Your task to perform on an android device: Open privacy settings Image 0: 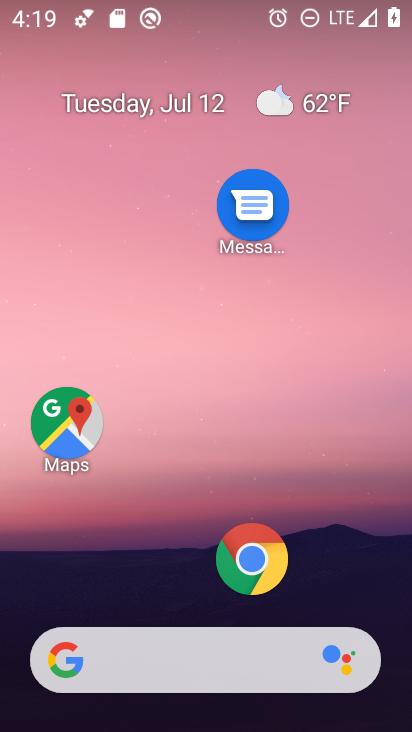
Step 0: click (249, 551)
Your task to perform on an android device: Open privacy settings Image 1: 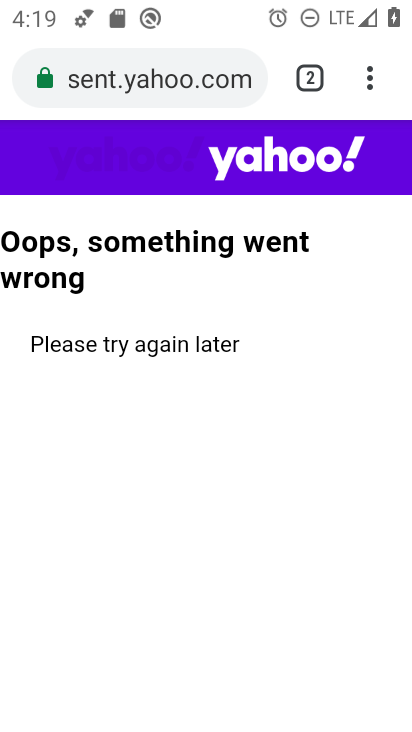
Step 1: drag from (366, 62) to (160, 600)
Your task to perform on an android device: Open privacy settings Image 2: 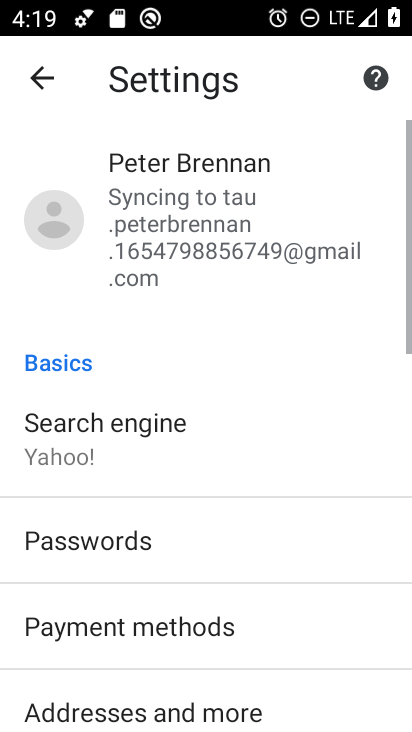
Step 2: drag from (148, 667) to (236, 107)
Your task to perform on an android device: Open privacy settings Image 3: 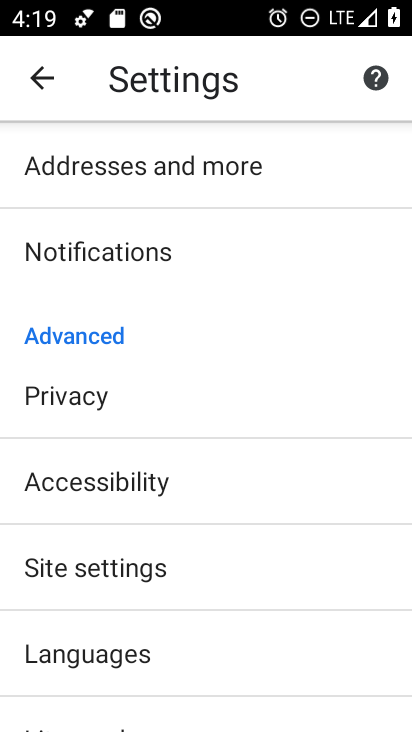
Step 3: click (81, 400)
Your task to perform on an android device: Open privacy settings Image 4: 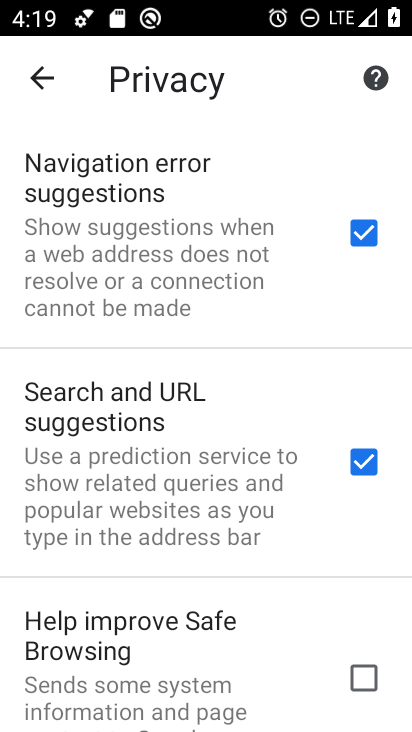
Step 4: task complete